Your task to perform on an android device: Open Youtube and go to "Your channel" Image 0: 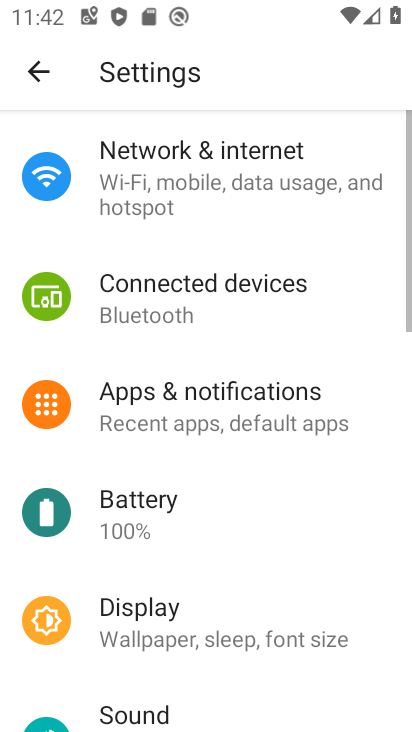
Step 0: drag from (175, 650) to (216, 291)
Your task to perform on an android device: Open Youtube and go to "Your channel" Image 1: 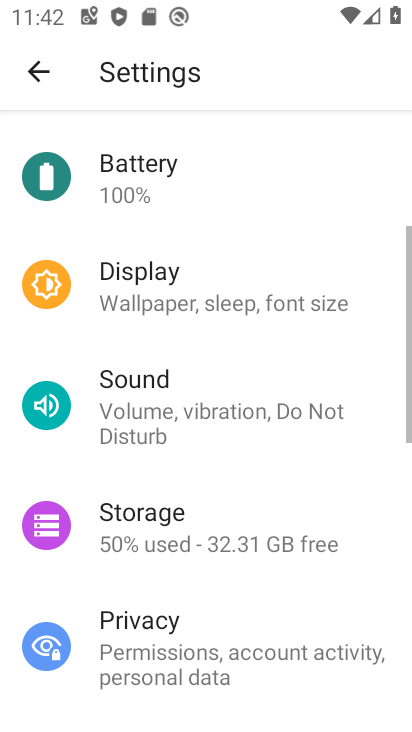
Step 1: press home button
Your task to perform on an android device: Open Youtube and go to "Your channel" Image 2: 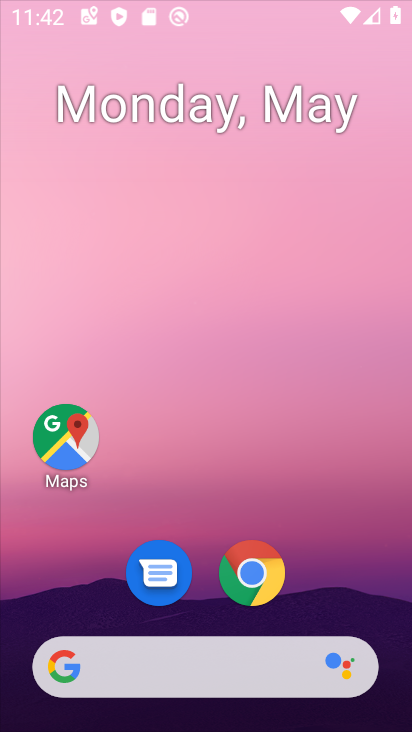
Step 2: drag from (210, 663) to (291, 140)
Your task to perform on an android device: Open Youtube and go to "Your channel" Image 3: 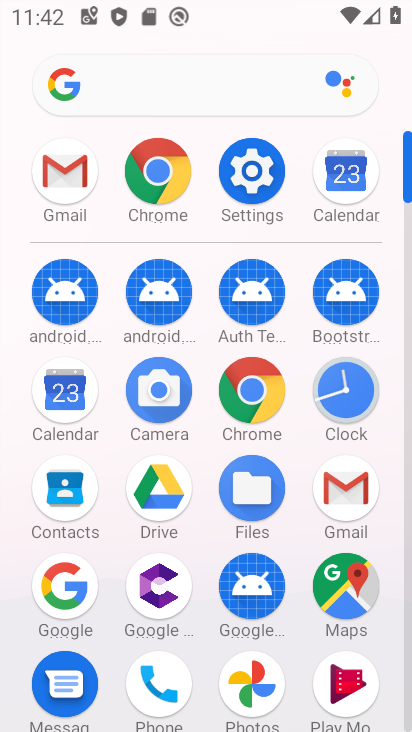
Step 3: drag from (211, 573) to (226, 199)
Your task to perform on an android device: Open Youtube and go to "Your channel" Image 4: 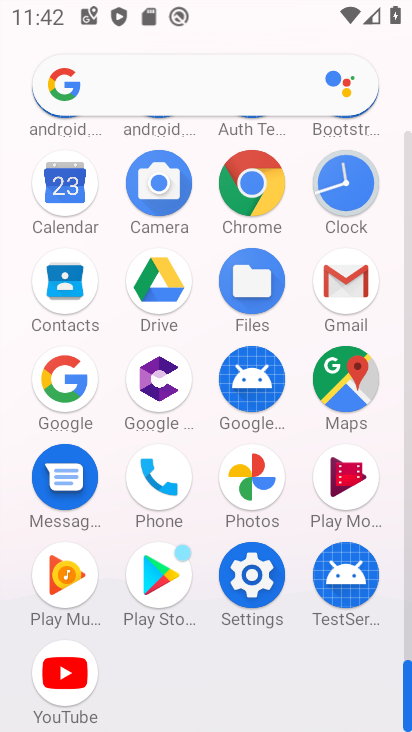
Step 4: click (77, 675)
Your task to perform on an android device: Open Youtube and go to "Your channel" Image 5: 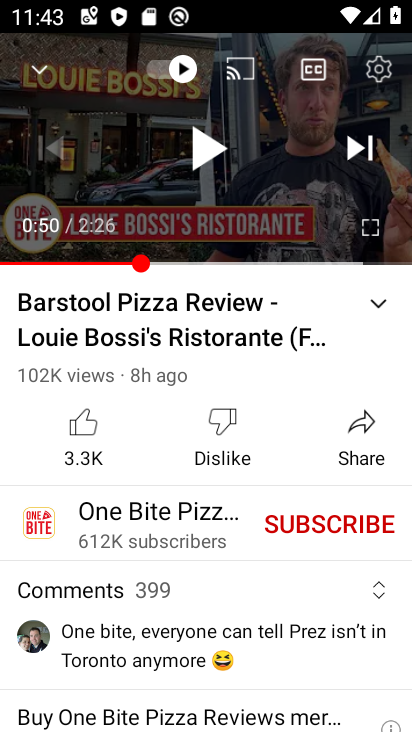
Step 5: click (47, 75)
Your task to perform on an android device: Open Youtube and go to "Your channel" Image 6: 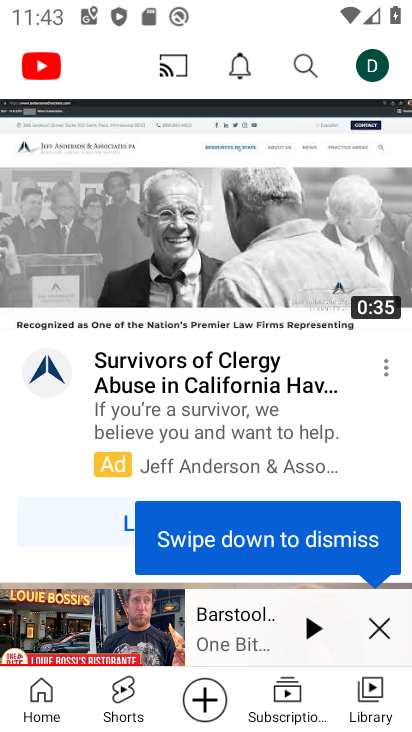
Step 6: click (379, 84)
Your task to perform on an android device: Open Youtube and go to "Your channel" Image 7: 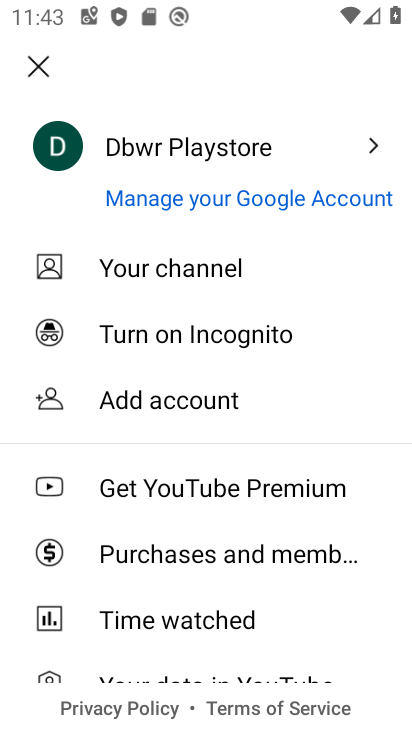
Step 7: click (179, 277)
Your task to perform on an android device: Open Youtube and go to "Your channel" Image 8: 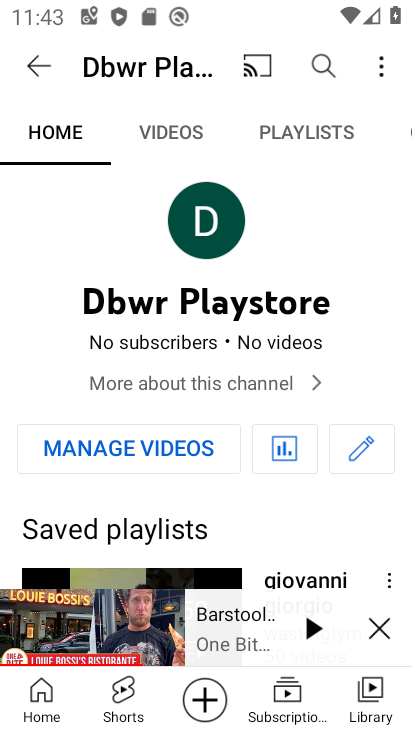
Step 8: task complete